Your task to perform on an android device: Open the map Image 0: 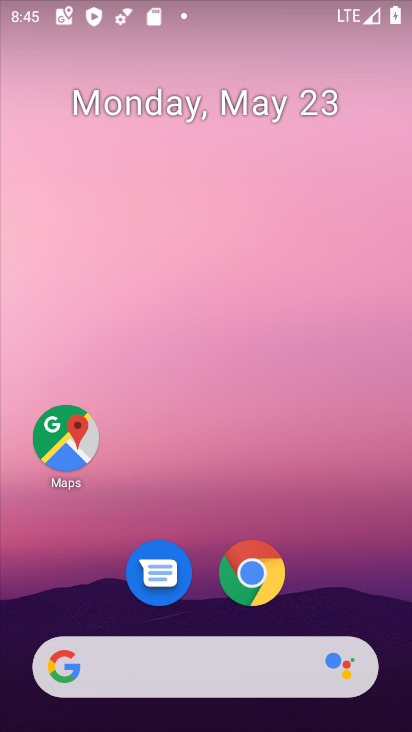
Step 0: click (63, 424)
Your task to perform on an android device: Open the map Image 1: 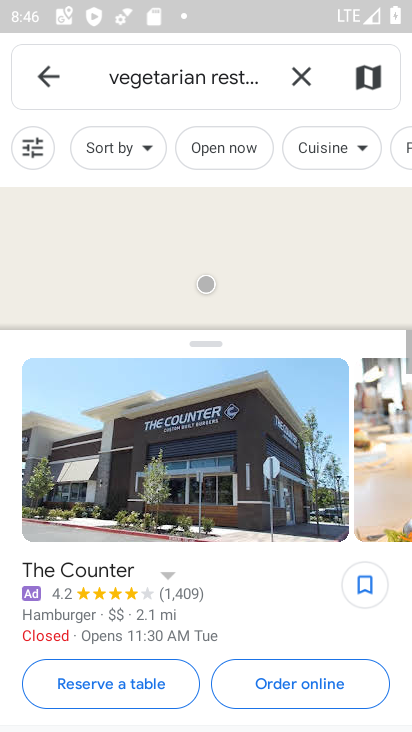
Step 1: click (297, 76)
Your task to perform on an android device: Open the map Image 2: 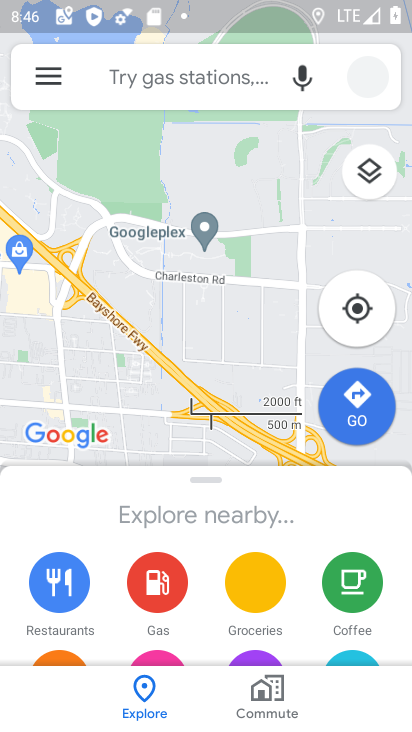
Step 2: task complete